Your task to perform on an android device: clear history in the chrome app Image 0: 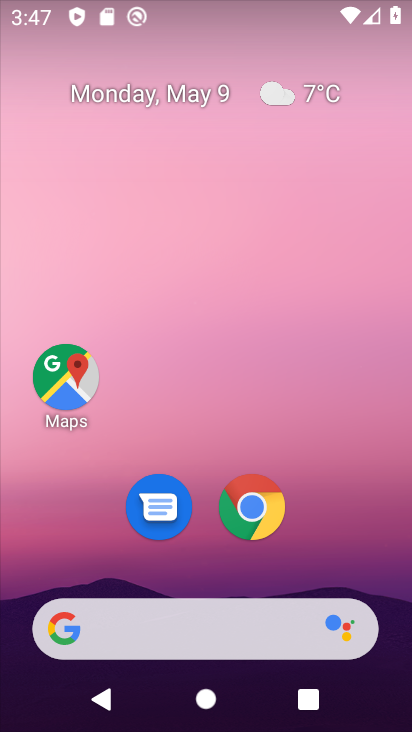
Step 0: drag from (215, 668) to (253, 169)
Your task to perform on an android device: clear history in the chrome app Image 1: 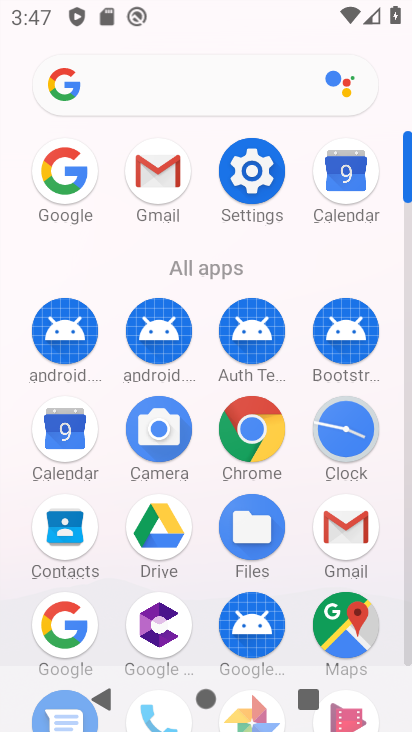
Step 1: click (259, 439)
Your task to perform on an android device: clear history in the chrome app Image 2: 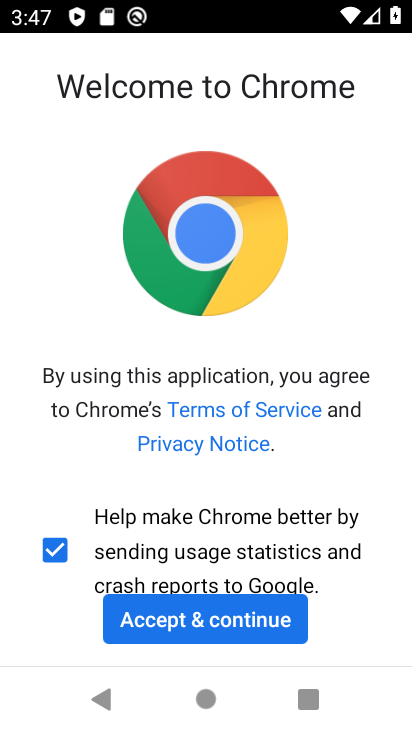
Step 2: click (224, 630)
Your task to perform on an android device: clear history in the chrome app Image 3: 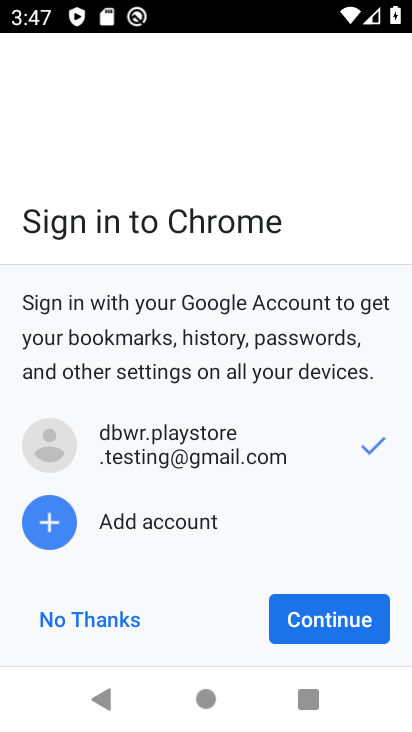
Step 3: click (316, 625)
Your task to perform on an android device: clear history in the chrome app Image 4: 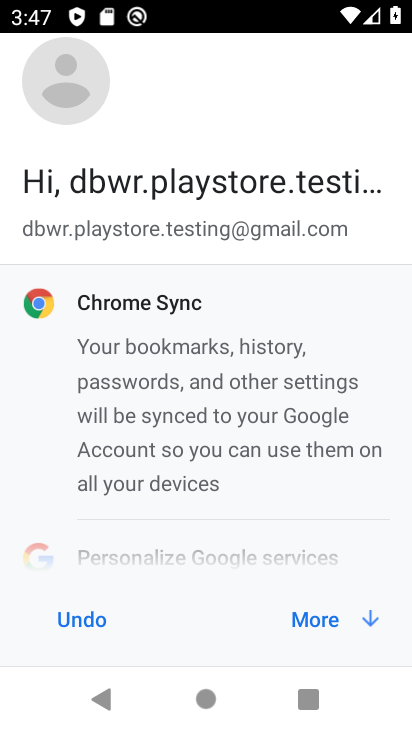
Step 4: click (333, 609)
Your task to perform on an android device: clear history in the chrome app Image 5: 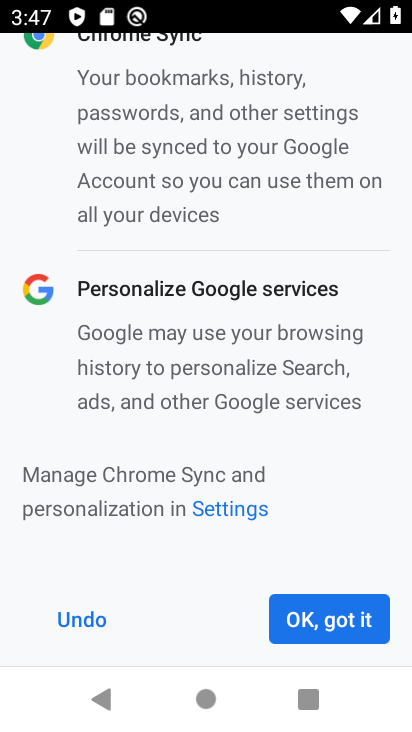
Step 5: click (341, 614)
Your task to perform on an android device: clear history in the chrome app Image 6: 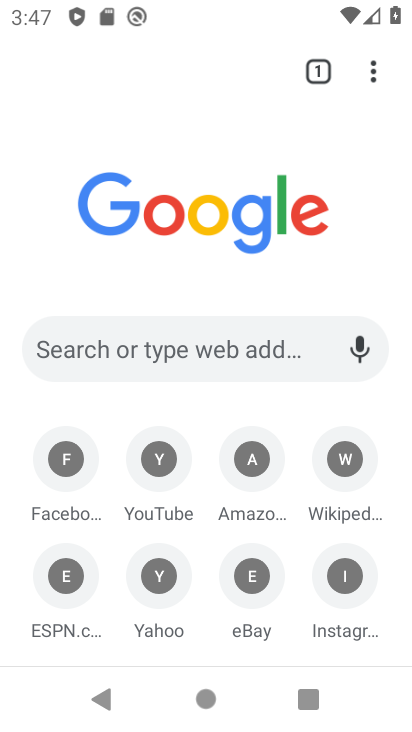
Step 6: click (367, 97)
Your task to perform on an android device: clear history in the chrome app Image 7: 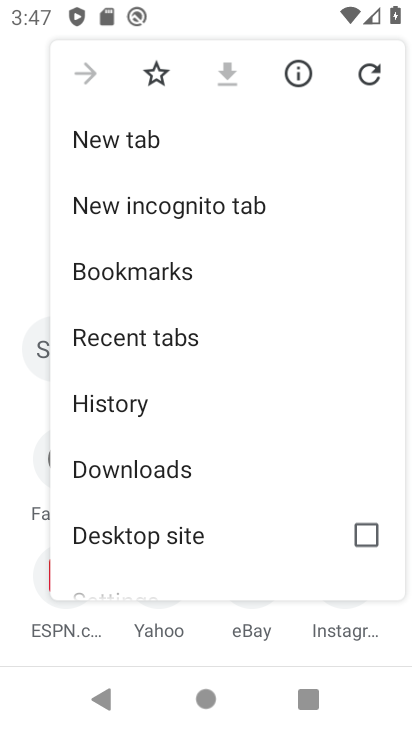
Step 7: click (153, 413)
Your task to perform on an android device: clear history in the chrome app Image 8: 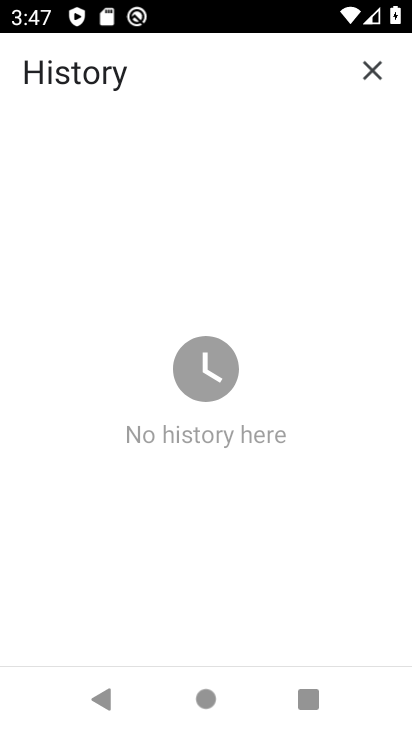
Step 8: task complete